Your task to perform on an android device: Open internet settings Image 0: 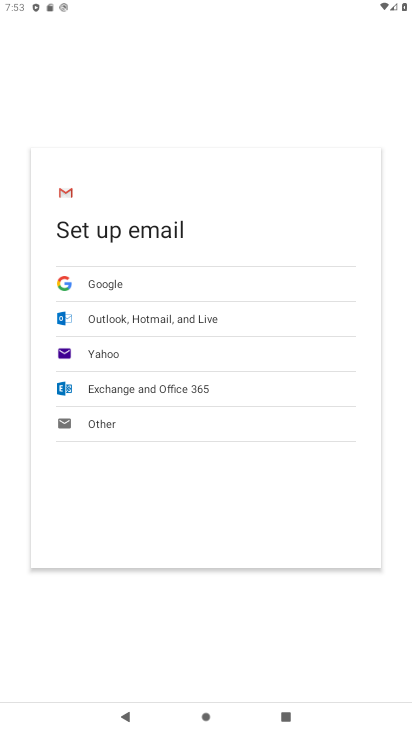
Step 0: press home button
Your task to perform on an android device: Open internet settings Image 1: 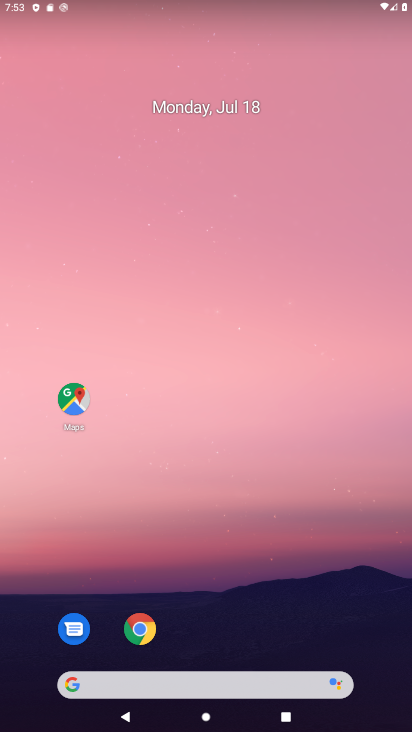
Step 1: drag from (322, 698) to (187, 53)
Your task to perform on an android device: Open internet settings Image 2: 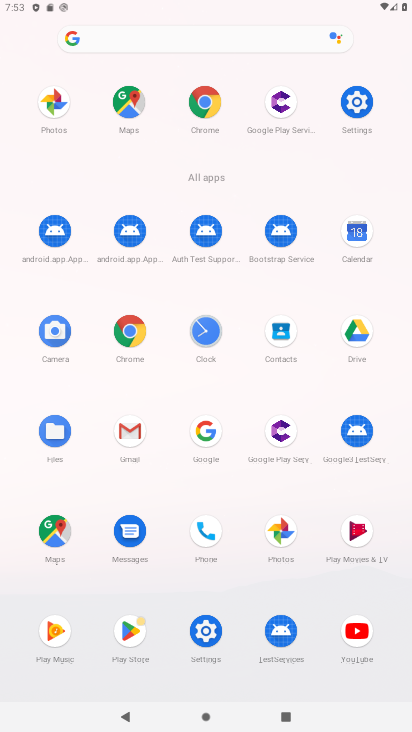
Step 2: click (359, 106)
Your task to perform on an android device: Open internet settings Image 3: 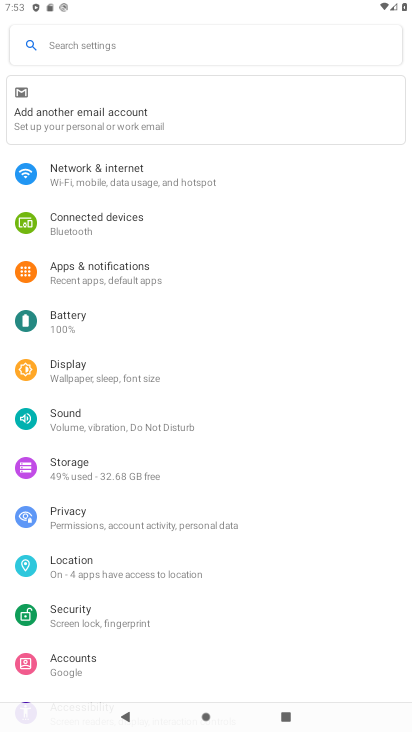
Step 3: click (171, 175)
Your task to perform on an android device: Open internet settings Image 4: 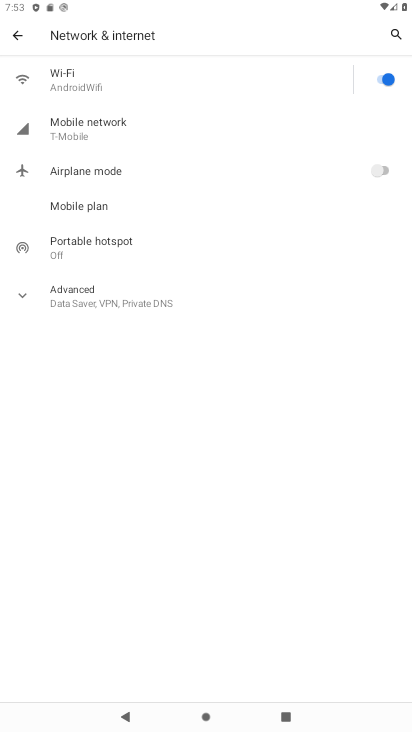
Step 4: click (124, 128)
Your task to perform on an android device: Open internet settings Image 5: 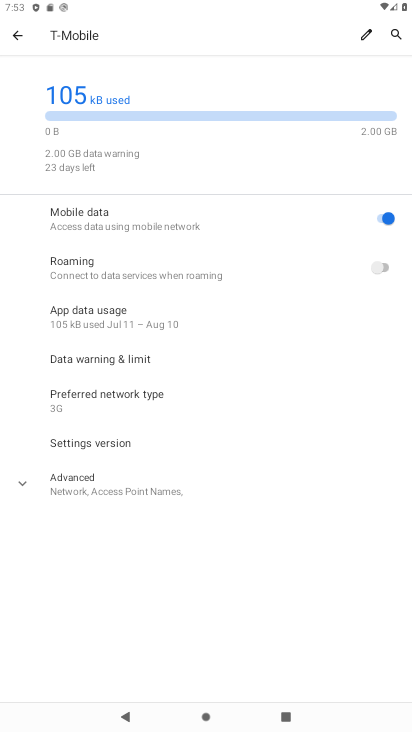
Step 5: task complete